Your task to perform on an android device: open app "ColorNote Notepad Notes" Image 0: 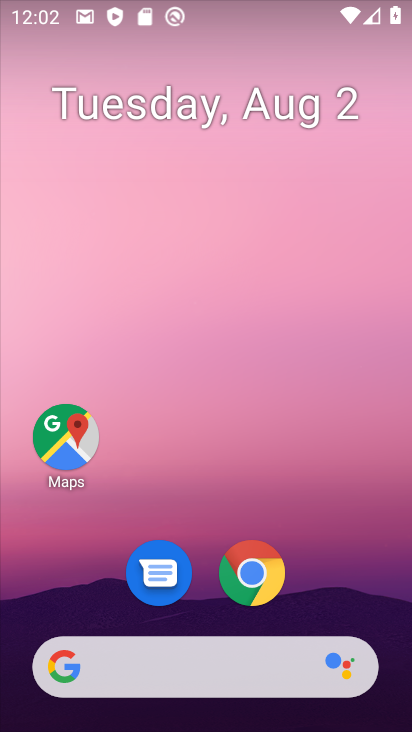
Step 0: drag from (233, 688) to (284, 119)
Your task to perform on an android device: open app "ColorNote Notepad Notes" Image 1: 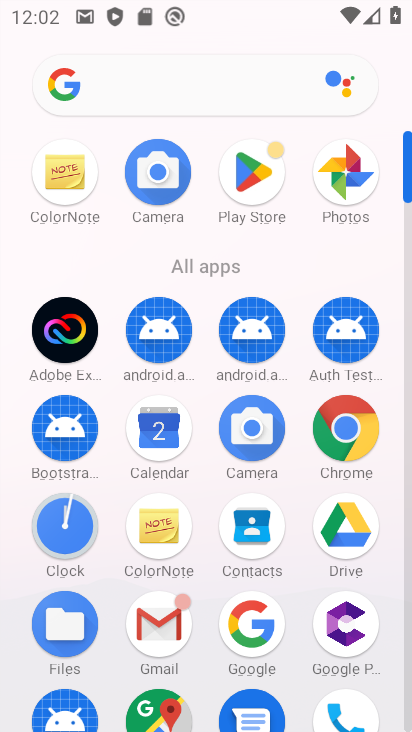
Step 1: click (267, 163)
Your task to perform on an android device: open app "ColorNote Notepad Notes" Image 2: 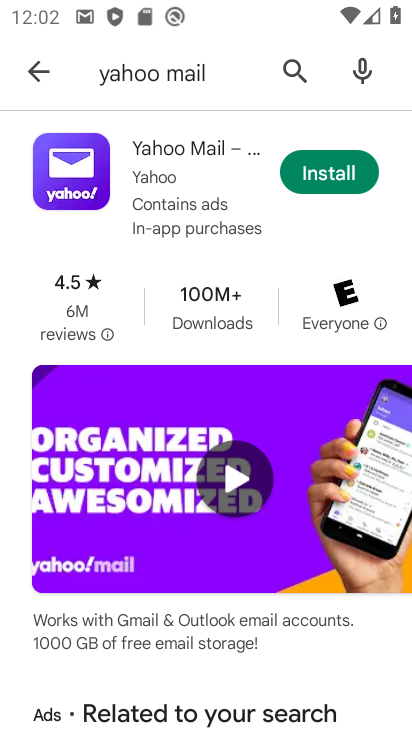
Step 2: click (291, 69)
Your task to perform on an android device: open app "ColorNote Notepad Notes" Image 3: 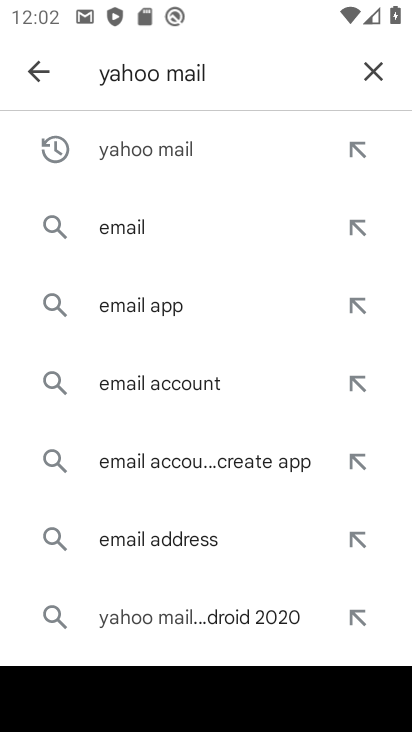
Step 3: click (374, 72)
Your task to perform on an android device: open app "ColorNote Notepad Notes" Image 4: 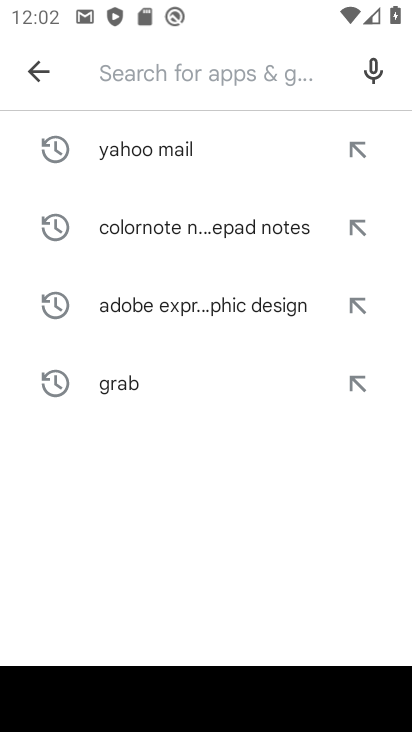
Step 4: type "colornote notepad notes"
Your task to perform on an android device: open app "ColorNote Notepad Notes" Image 5: 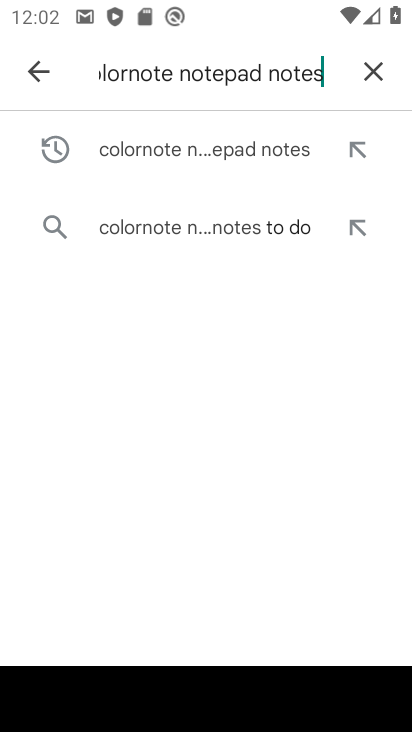
Step 5: click (249, 140)
Your task to perform on an android device: open app "ColorNote Notepad Notes" Image 6: 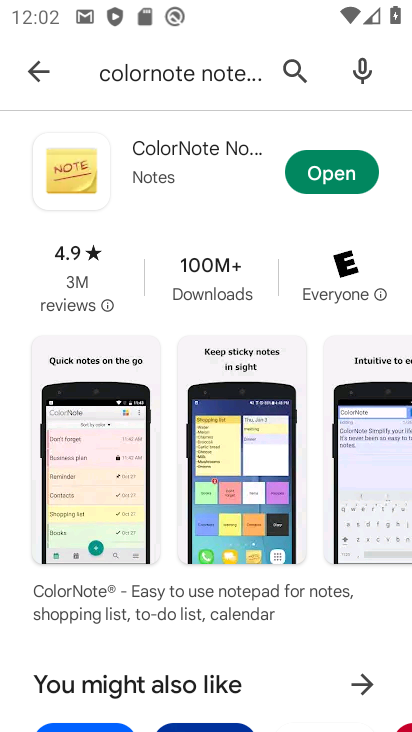
Step 6: click (333, 179)
Your task to perform on an android device: open app "ColorNote Notepad Notes" Image 7: 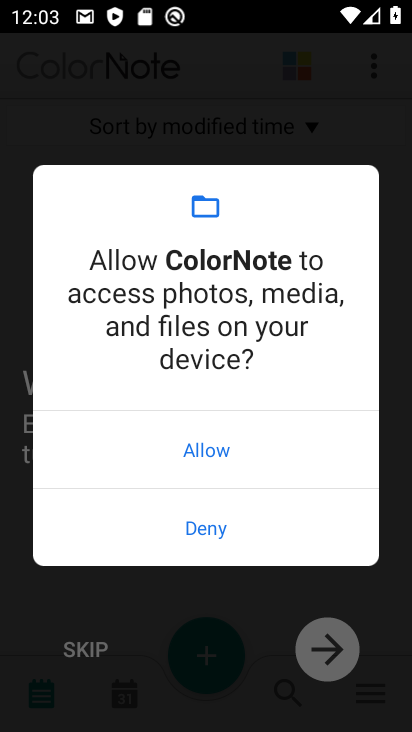
Step 7: click (222, 525)
Your task to perform on an android device: open app "ColorNote Notepad Notes" Image 8: 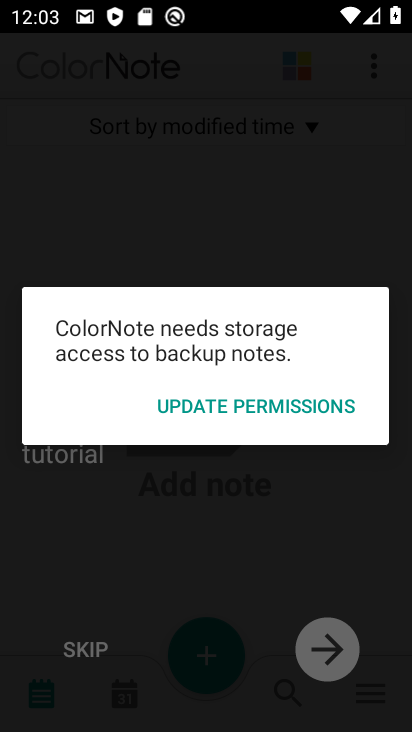
Step 8: task complete